Your task to perform on an android device: change the clock display to analog Image 0: 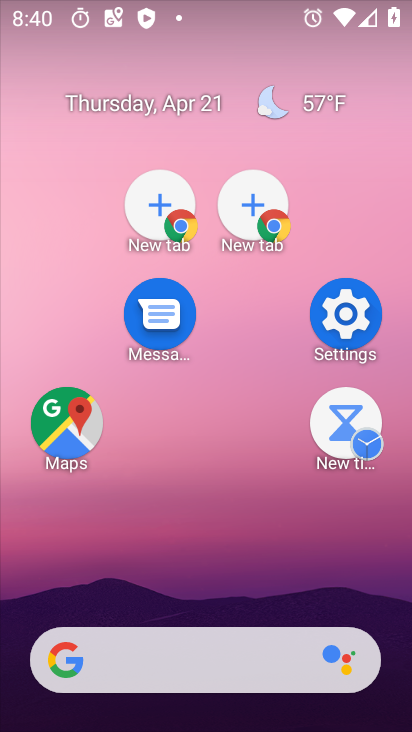
Step 0: drag from (309, 716) to (100, 65)
Your task to perform on an android device: change the clock display to analog Image 1: 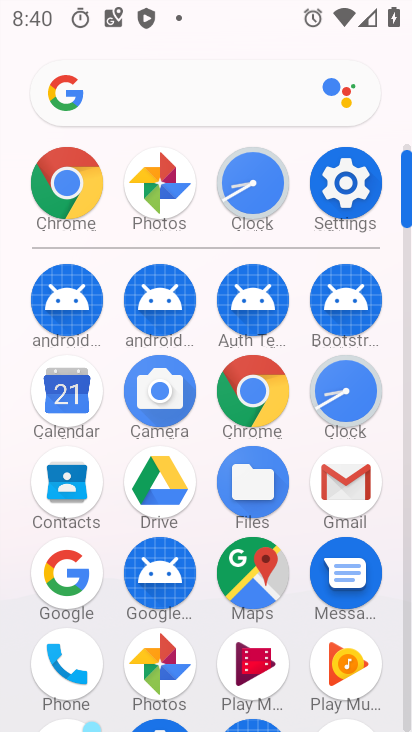
Step 1: click (333, 385)
Your task to perform on an android device: change the clock display to analog Image 2: 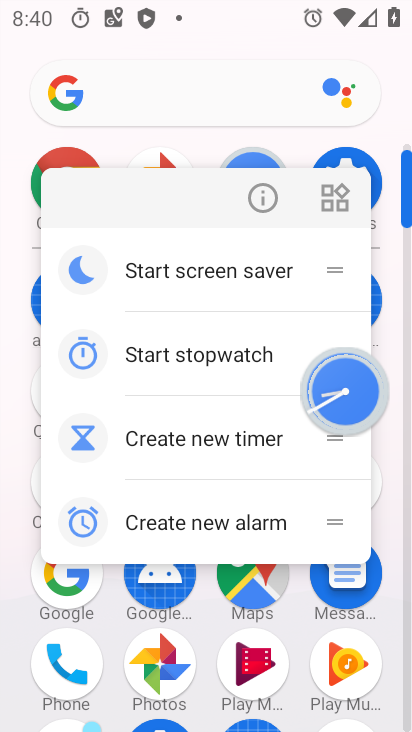
Step 2: click (334, 381)
Your task to perform on an android device: change the clock display to analog Image 3: 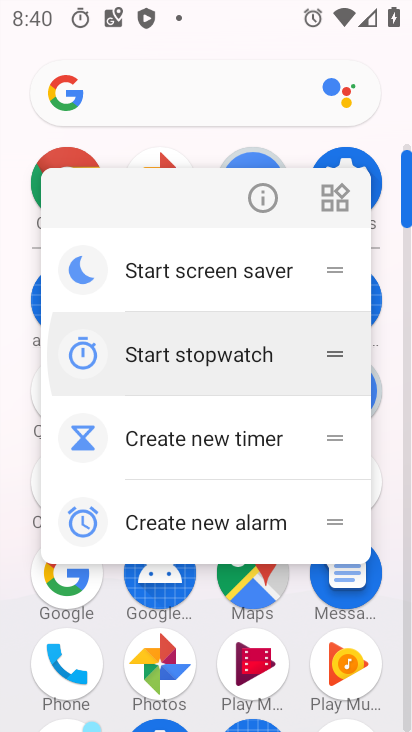
Step 3: click (336, 374)
Your task to perform on an android device: change the clock display to analog Image 4: 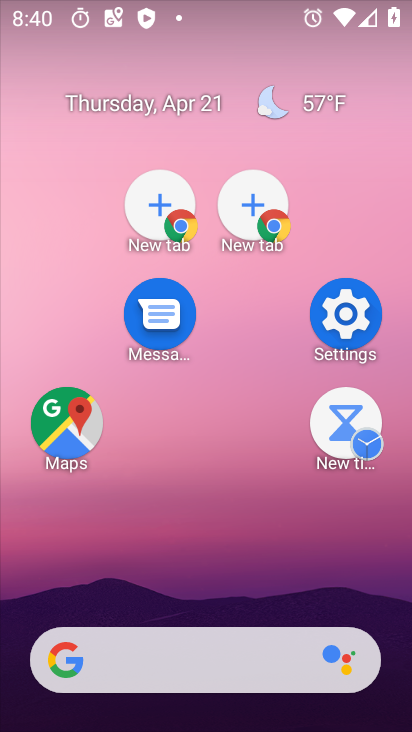
Step 4: drag from (199, 450) to (191, 127)
Your task to perform on an android device: change the clock display to analog Image 5: 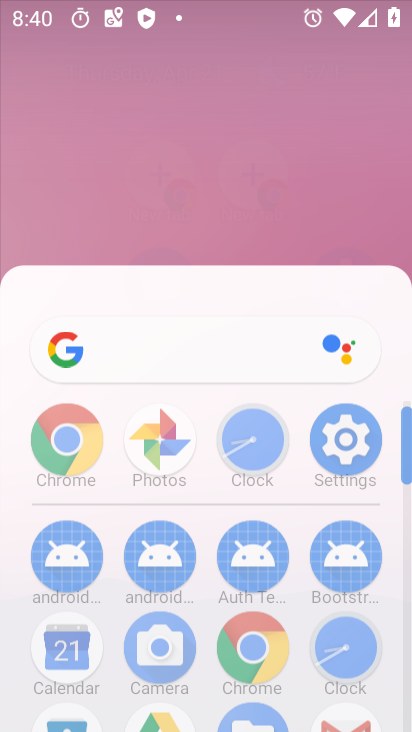
Step 5: drag from (252, 515) to (181, 98)
Your task to perform on an android device: change the clock display to analog Image 6: 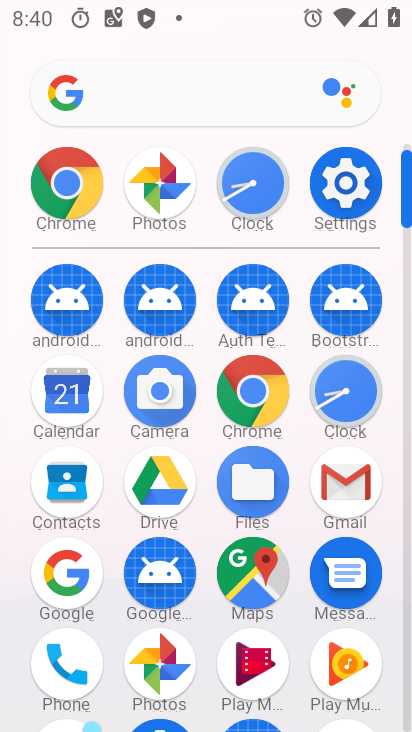
Step 6: drag from (240, 525) to (194, 151)
Your task to perform on an android device: change the clock display to analog Image 7: 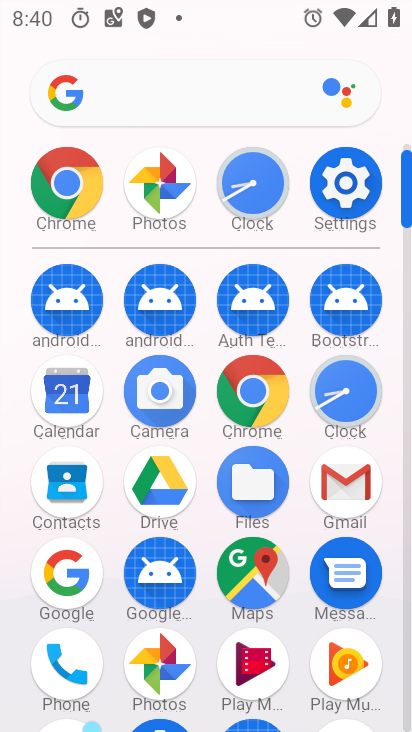
Step 7: click (335, 397)
Your task to perform on an android device: change the clock display to analog Image 8: 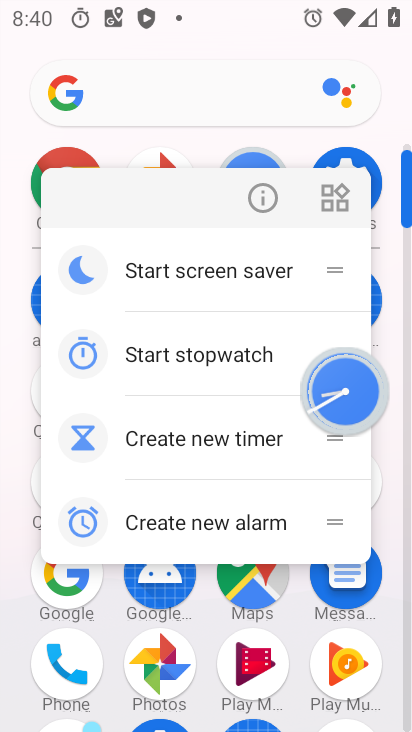
Step 8: click (343, 396)
Your task to perform on an android device: change the clock display to analog Image 9: 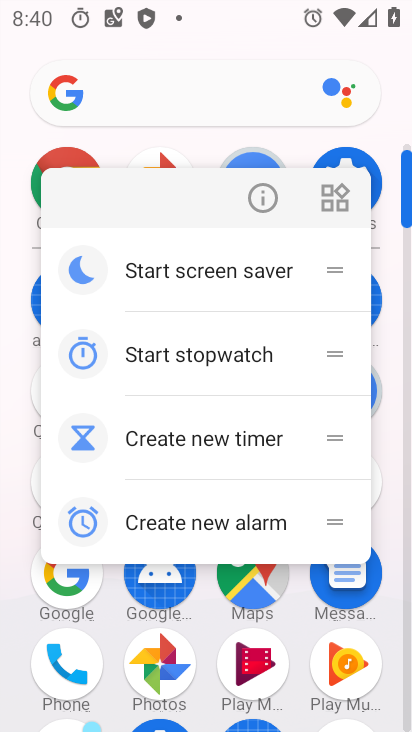
Step 9: click (343, 396)
Your task to perform on an android device: change the clock display to analog Image 10: 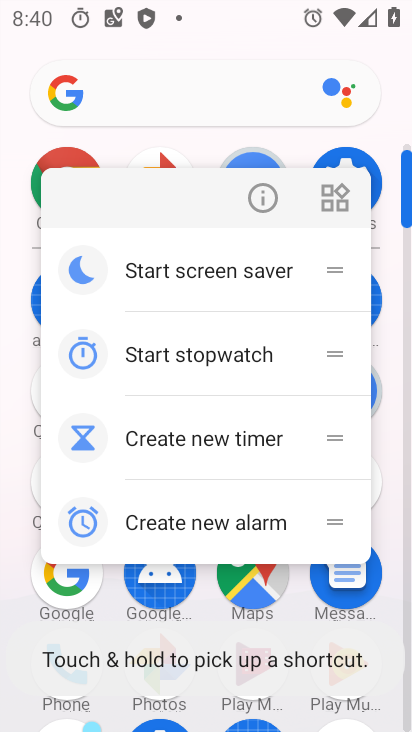
Step 10: click (386, 356)
Your task to perform on an android device: change the clock display to analog Image 11: 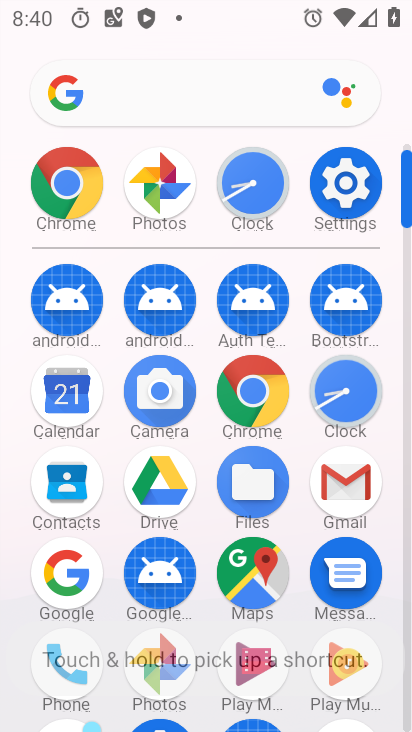
Step 11: click (386, 356)
Your task to perform on an android device: change the clock display to analog Image 12: 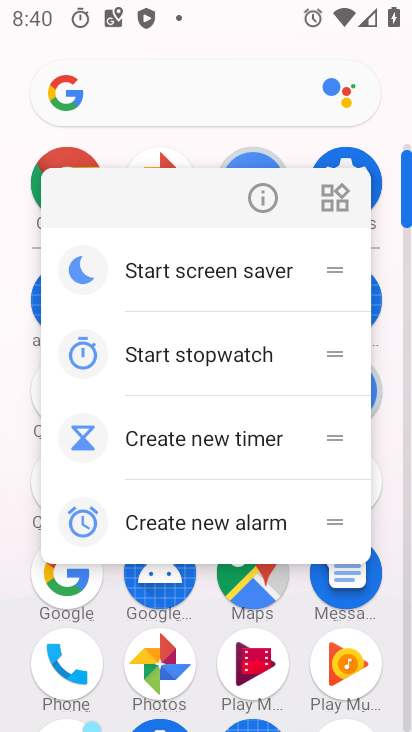
Step 12: click (369, 350)
Your task to perform on an android device: change the clock display to analog Image 13: 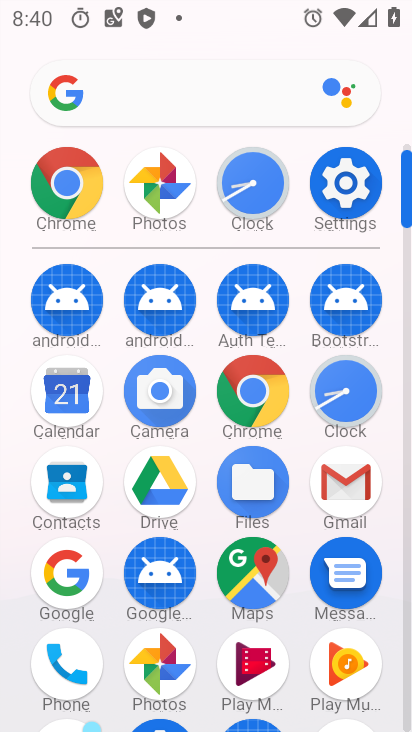
Step 13: click (372, 356)
Your task to perform on an android device: change the clock display to analog Image 14: 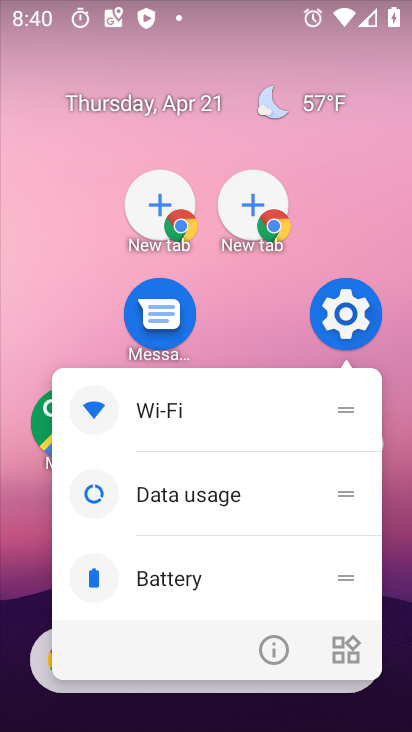
Step 14: drag from (331, 422) to (253, 179)
Your task to perform on an android device: change the clock display to analog Image 15: 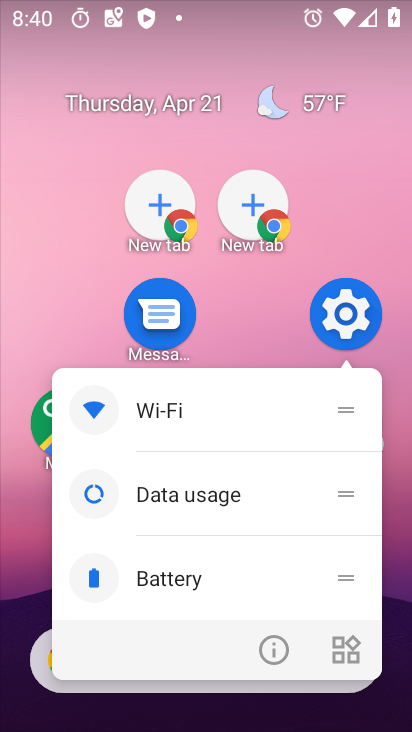
Step 15: drag from (333, 362) to (228, 42)
Your task to perform on an android device: change the clock display to analog Image 16: 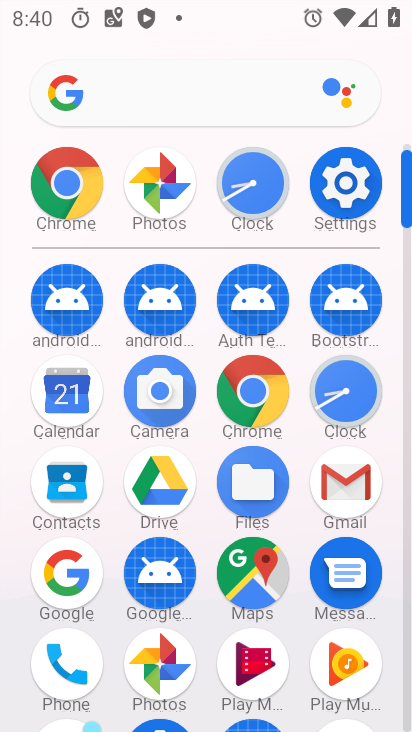
Step 16: click (339, 388)
Your task to perform on an android device: change the clock display to analog Image 17: 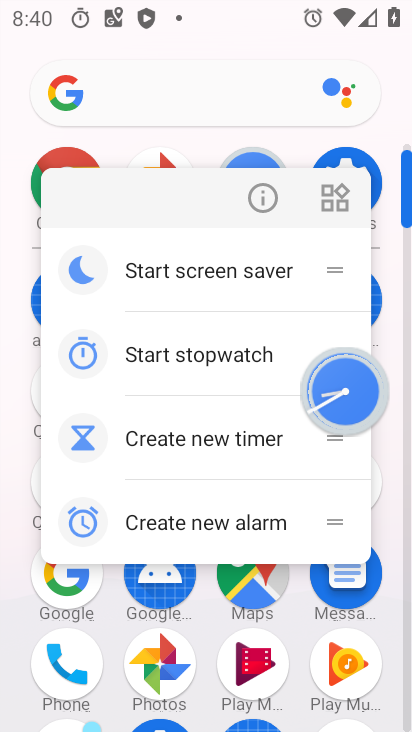
Step 17: click (343, 381)
Your task to perform on an android device: change the clock display to analog Image 18: 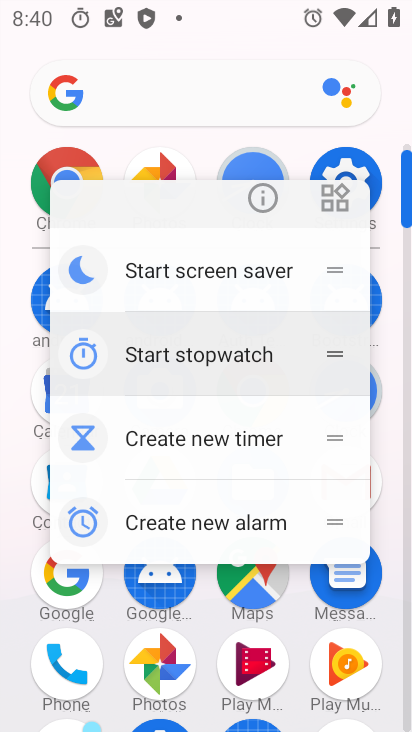
Step 18: click (343, 379)
Your task to perform on an android device: change the clock display to analog Image 19: 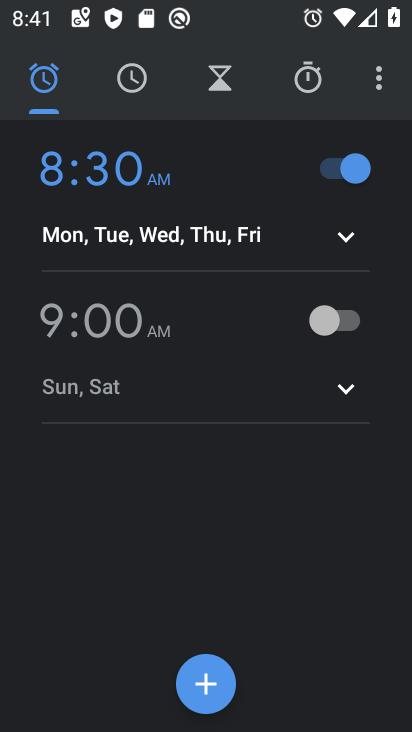
Step 19: click (374, 78)
Your task to perform on an android device: change the clock display to analog Image 20: 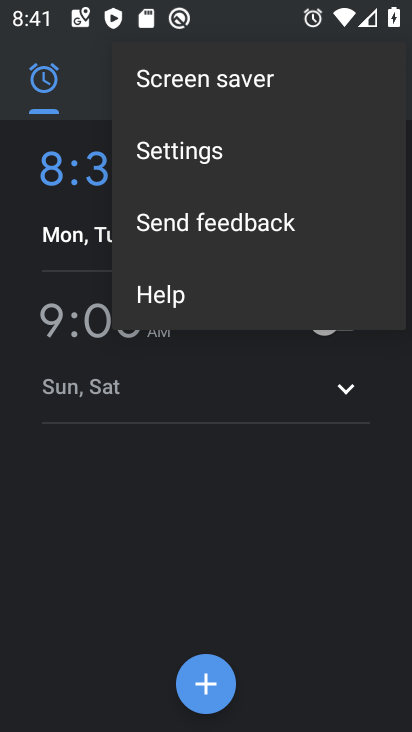
Step 20: click (171, 148)
Your task to perform on an android device: change the clock display to analog Image 21: 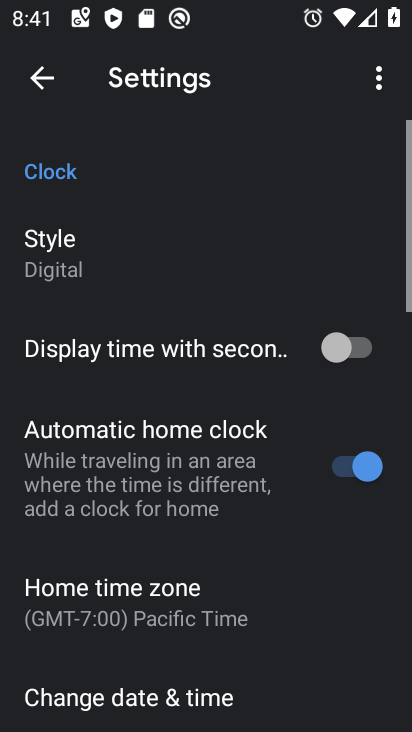
Step 21: click (109, 252)
Your task to perform on an android device: change the clock display to analog Image 22: 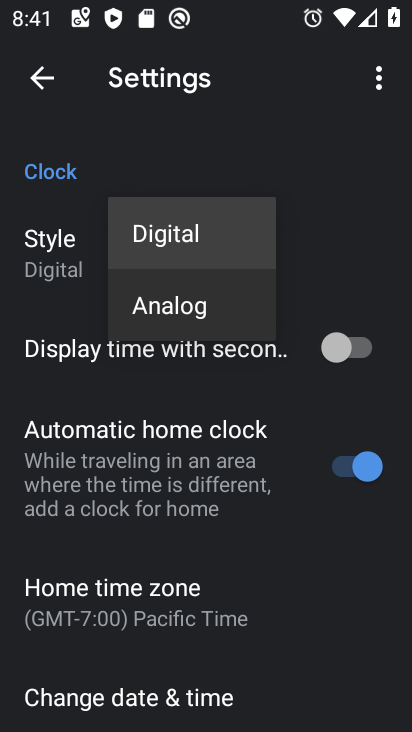
Step 22: click (188, 310)
Your task to perform on an android device: change the clock display to analog Image 23: 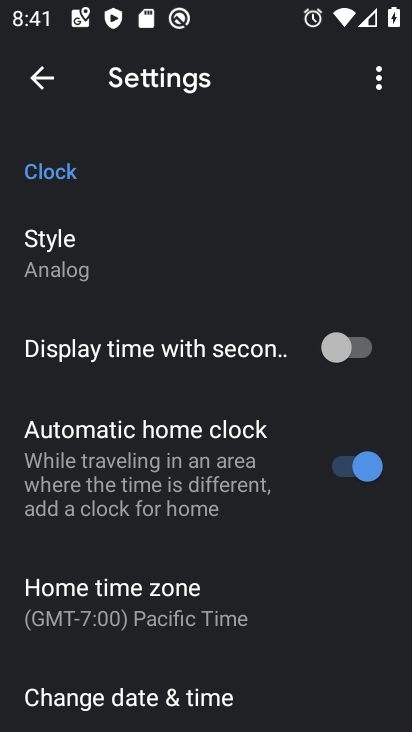
Step 23: press home button
Your task to perform on an android device: change the clock display to analog Image 24: 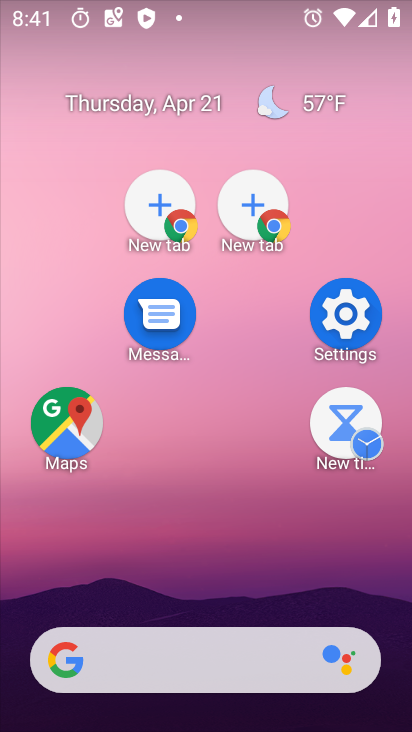
Step 24: drag from (205, 489) to (213, 129)
Your task to perform on an android device: change the clock display to analog Image 25: 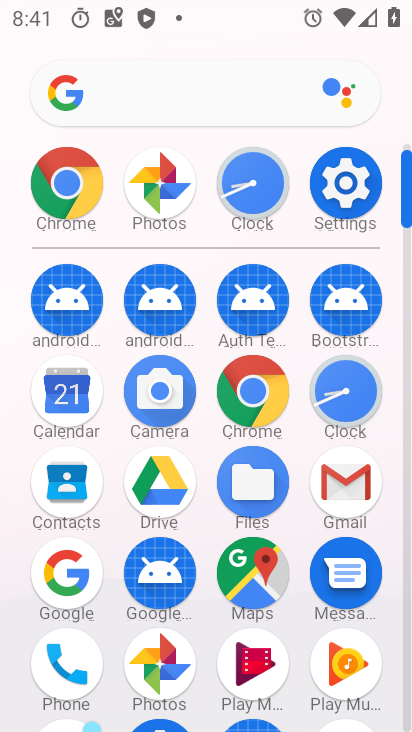
Step 25: click (353, 389)
Your task to perform on an android device: change the clock display to analog Image 26: 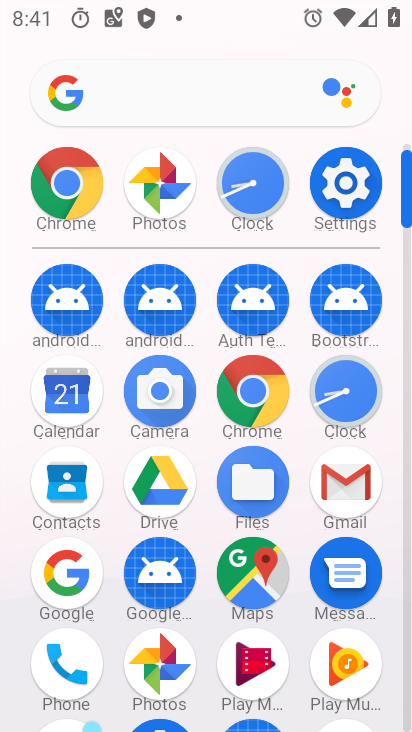
Step 26: click (353, 389)
Your task to perform on an android device: change the clock display to analog Image 27: 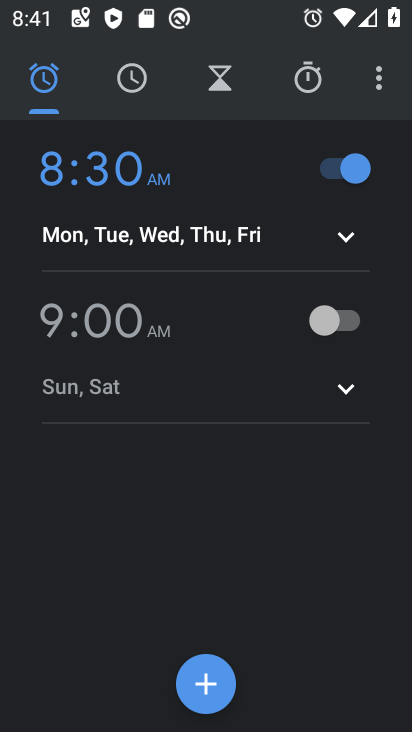
Step 27: click (372, 79)
Your task to perform on an android device: change the clock display to analog Image 28: 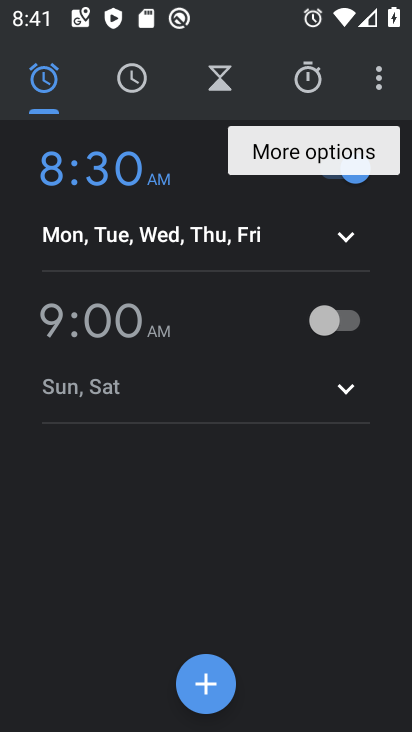
Step 28: click (367, 145)
Your task to perform on an android device: change the clock display to analog Image 29: 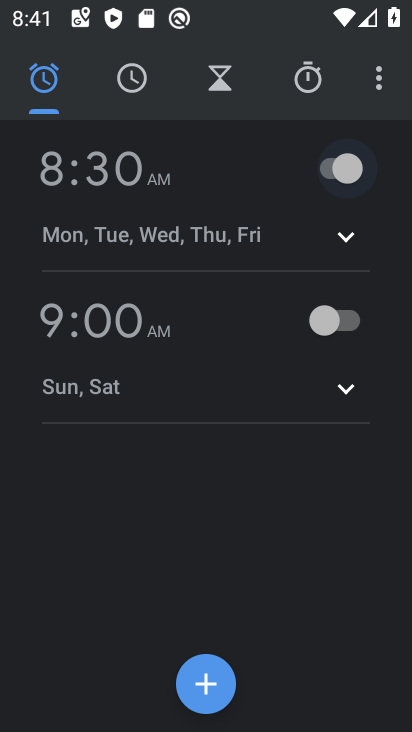
Step 29: click (377, 82)
Your task to perform on an android device: change the clock display to analog Image 30: 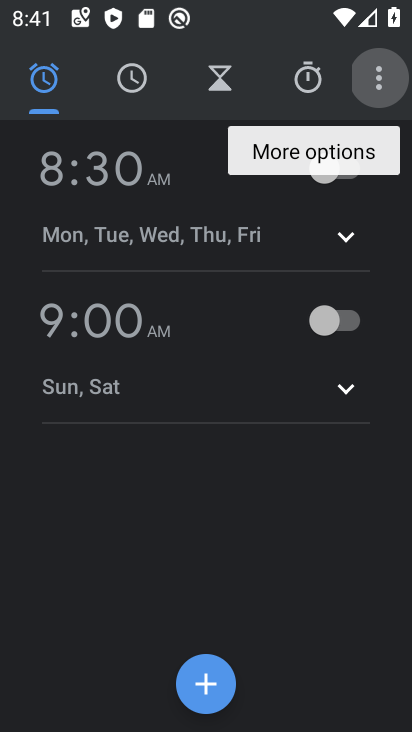
Step 30: click (377, 82)
Your task to perform on an android device: change the clock display to analog Image 31: 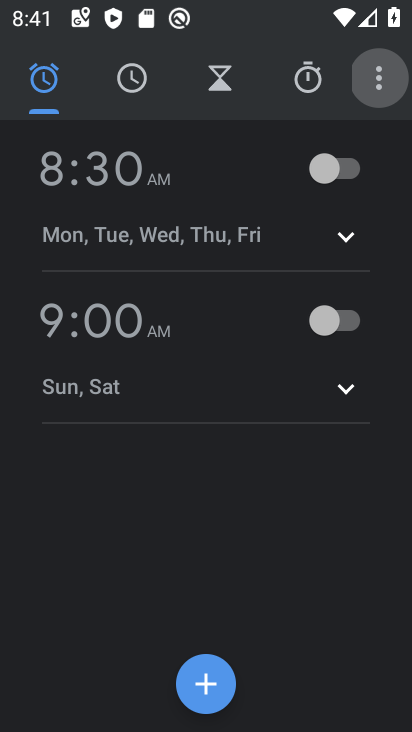
Step 31: click (378, 83)
Your task to perform on an android device: change the clock display to analog Image 32: 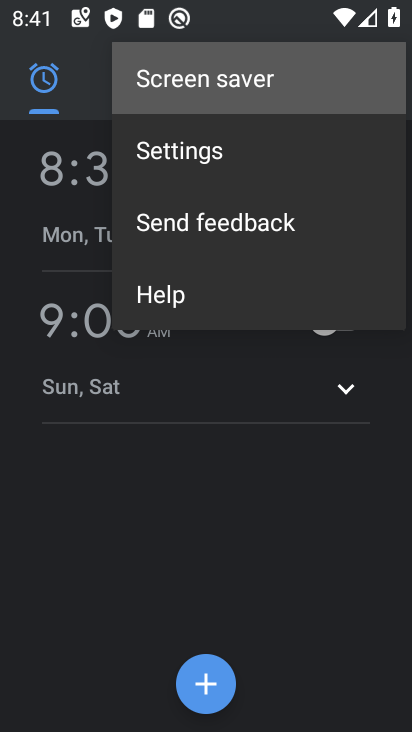
Step 32: click (379, 84)
Your task to perform on an android device: change the clock display to analog Image 33: 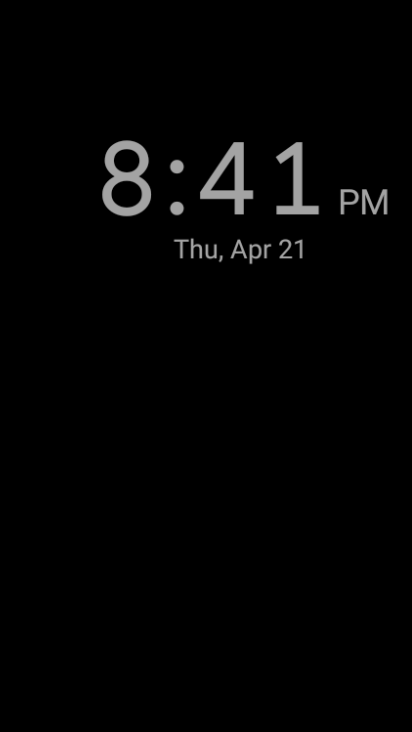
Step 33: drag from (222, 705) to (210, 76)
Your task to perform on an android device: change the clock display to analog Image 34: 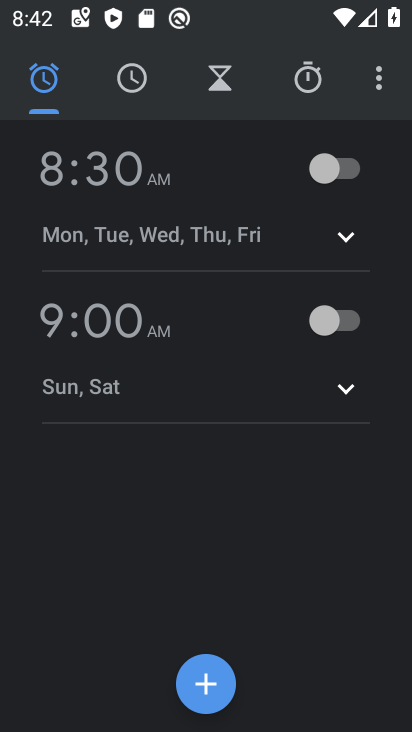
Step 34: drag from (378, 72) to (363, 143)
Your task to perform on an android device: change the clock display to analog Image 35: 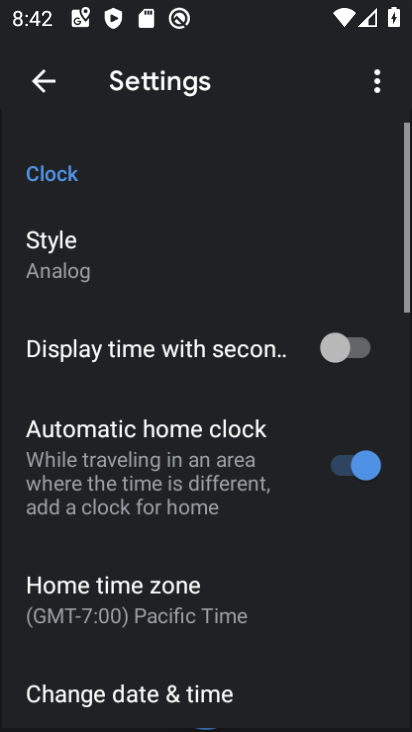
Step 35: click (199, 156)
Your task to perform on an android device: change the clock display to analog Image 36: 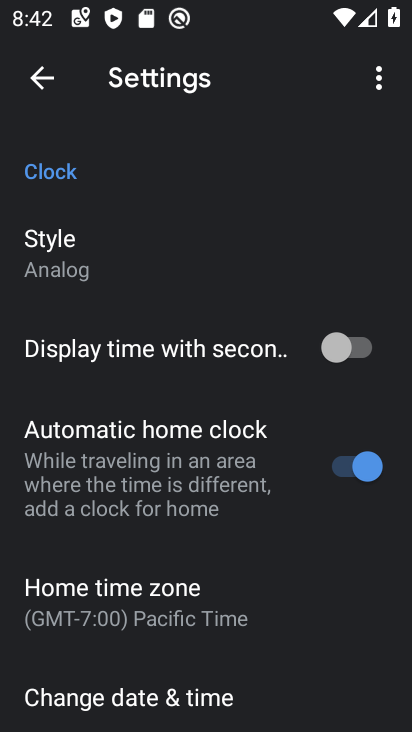
Step 36: task complete